Your task to perform on an android device: Search for pizza restaurants on Maps Image 0: 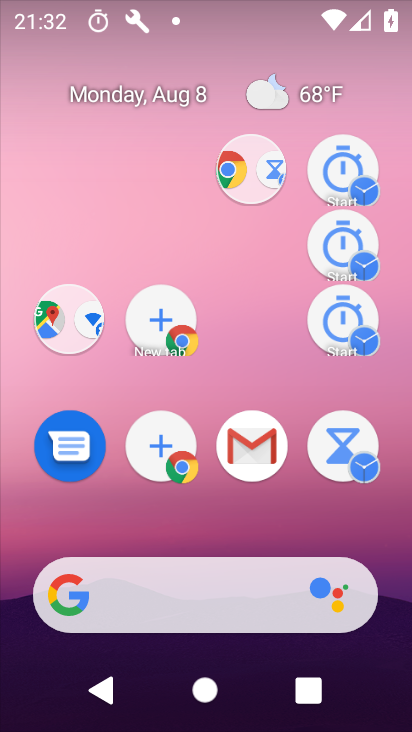
Step 0: click (200, 311)
Your task to perform on an android device: Search for pizza restaurants on Maps Image 1: 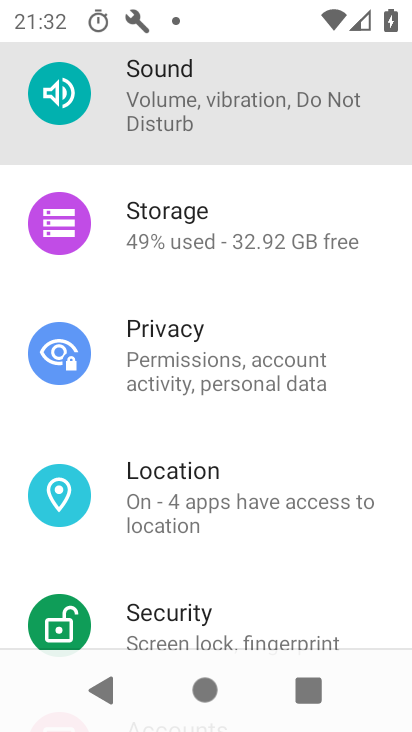
Step 1: drag from (259, 633) to (219, 344)
Your task to perform on an android device: Search for pizza restaurants on Maps Image 2: 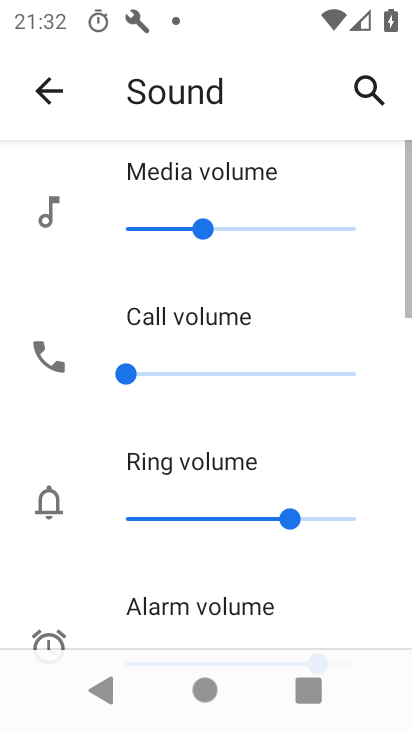
Step 2: press back button
Your task to perform on an android device: Search for pizza restaurants on Maps Image 3: 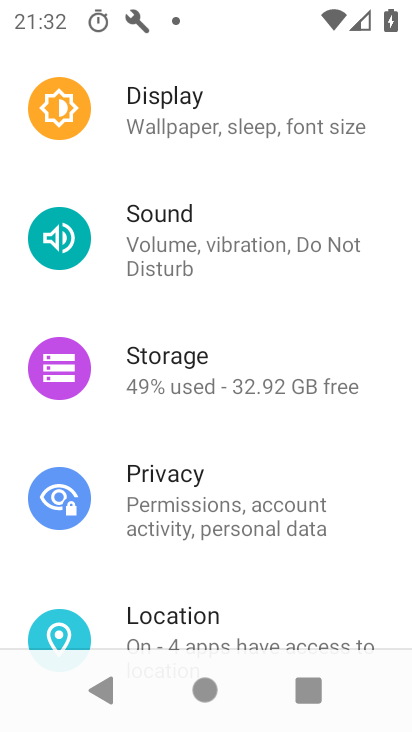
Step 3: press home button
Your task to perform on an android device: Search for pizza restaurants on Maps Image 4: 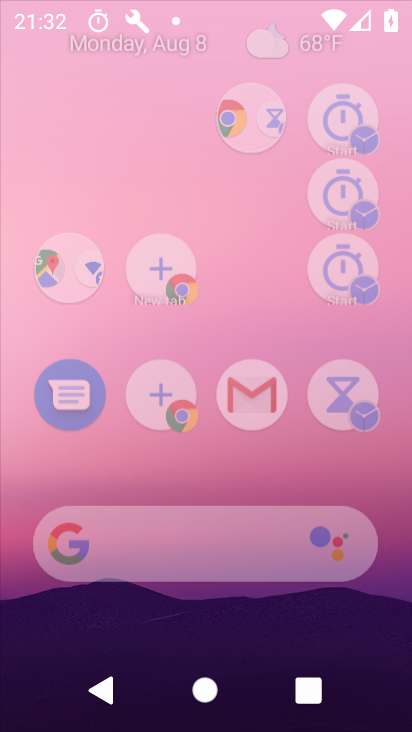
Step 4: press back button
Your task to perform on an android device: Search for pizza restaurants on Maps Image 5: 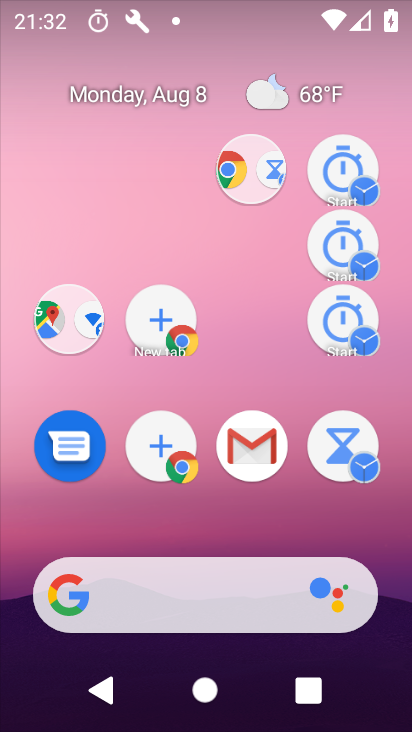
Step 5: drag from (228, 632) to (218, 353)
Your task to perform on an android device: Search for pizza restaurants on Maps Image 6: 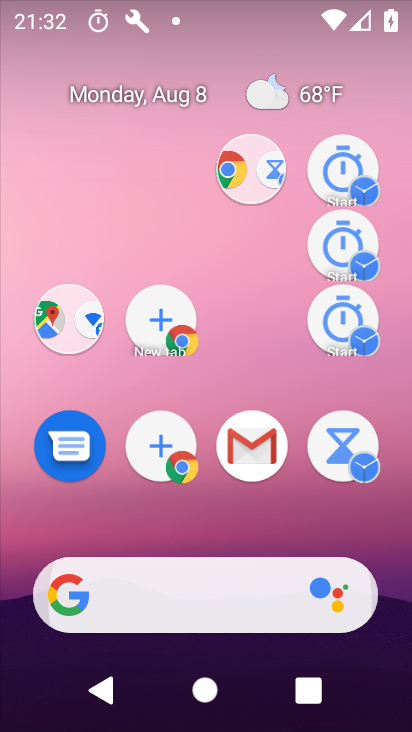
Step 6: drag from (255, 601) to (178, 207)
Your task to perform on an android device: Search for pizza restaurants on Maps Image 7: 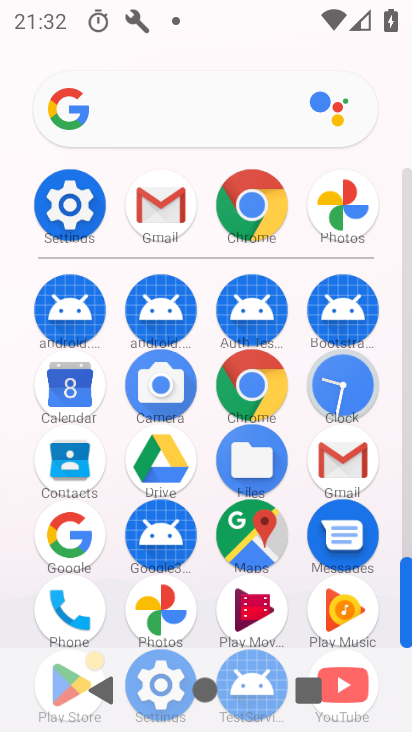
Step 7: drag from (214, 451) to (176, 173)
Your task to perform on an android device: Search for pizza restaurants on Maps Image 8: 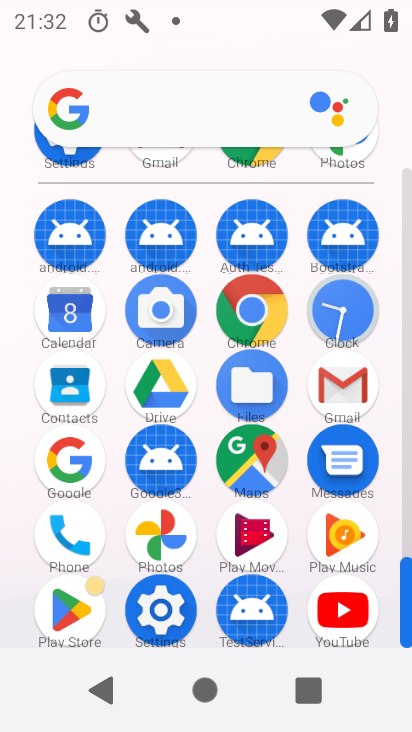
Step 8: click (336, 318)
Your task to perform on an android device: Search for pizza restaurants on Maps Image 9: 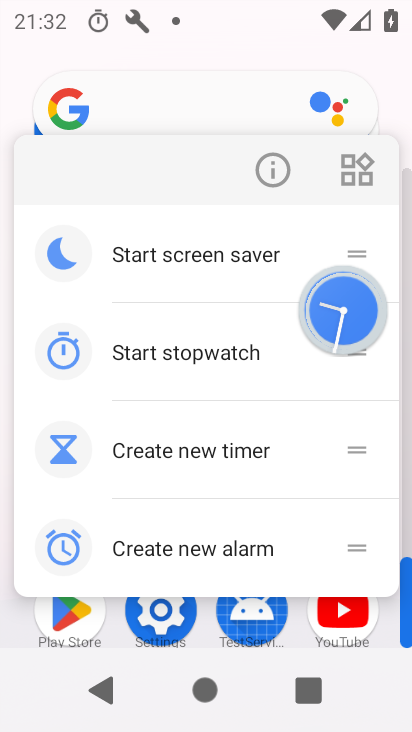
Step 9: click (335, 317)
Your task to perform on an android device: Search for pizza restaurants on Maps Image 10: 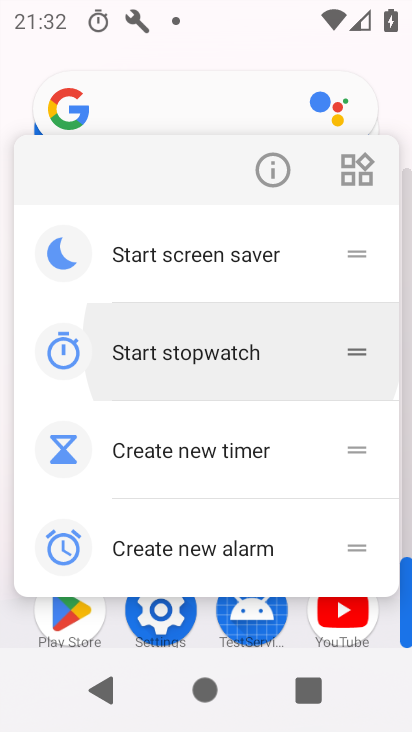
Step 10: click (341, 299)
Your task to perform on an android device: Search for pizza restaurants on Maps Image 11: 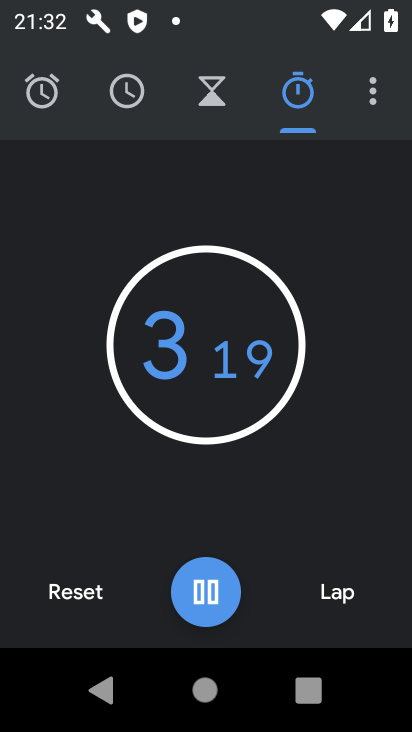
Step 11: click (204, 595)
Your task to perform on an android device: Search for pizza restaurants on Maps Image 12: 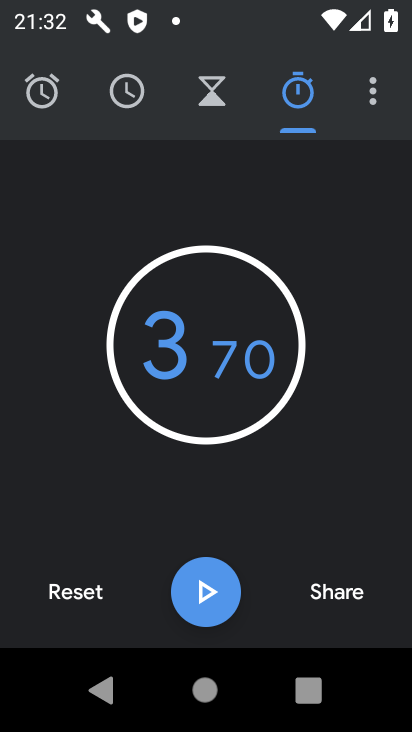
Step 12: click (207, 96)
Your task to perform on an android device: Search for pizza restaurants on Maps Image 13: 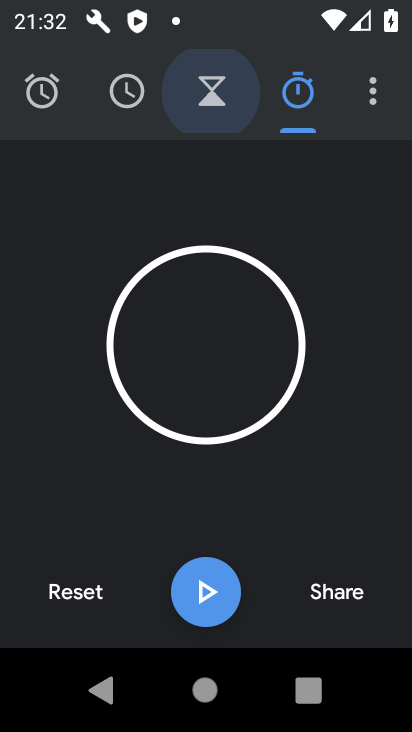
Step 13: click (207, 96)
Your task to perform on an android device: Search for pizza restaurants on Maps Image 14: 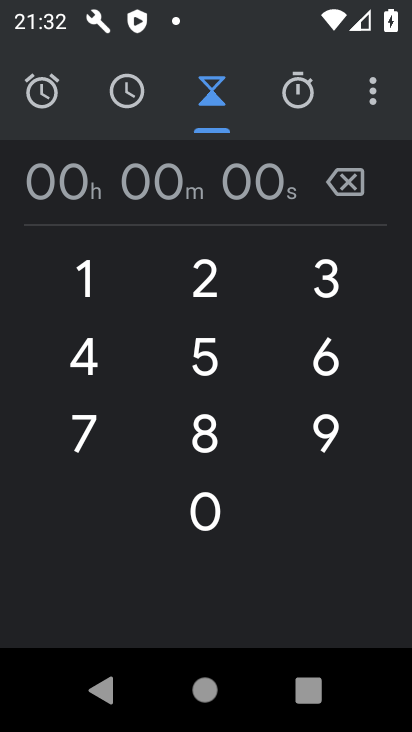
Step 14: click (208, 435)
Your task to perform on an android device: Search for pizza restaurants on Maps Image 15: 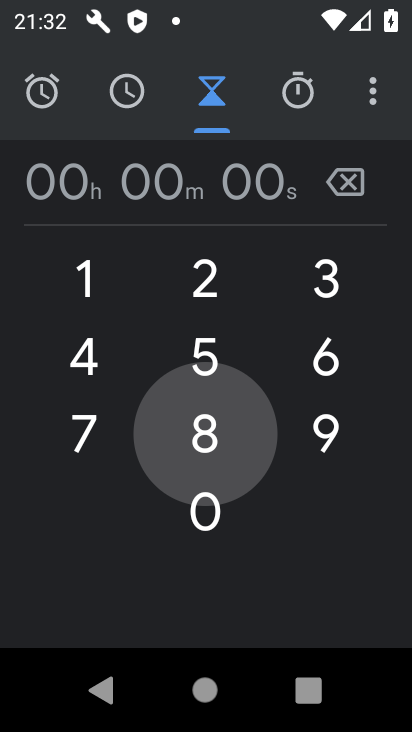
Step 15: click (210, 436)
Your task to perform on an android device: Search for pizza restaurants on Maps Image 16: 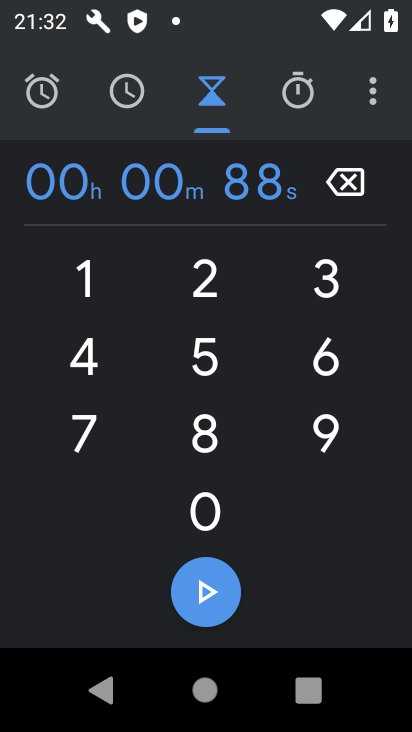
Step 16: click (212, 438)
Your task to perform on an android device: Search for pizza restaurants on Maps Image 17: 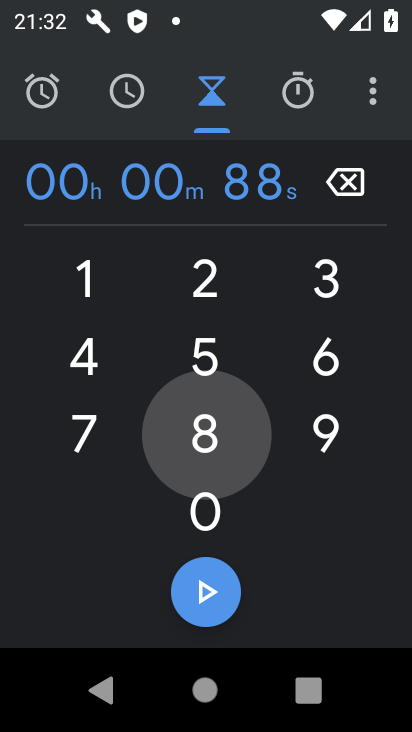
Step 17: click (214, 439)
Your task to perform on an android device: Search for pizza restaurants on Maps Image 18: 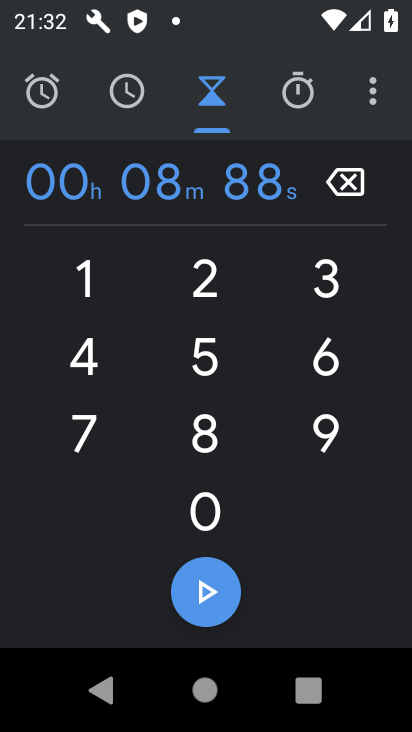
Step 18: click (214, 439)
Your task to perform on an android device: Search for pizza restaurants on Maps Image 19: 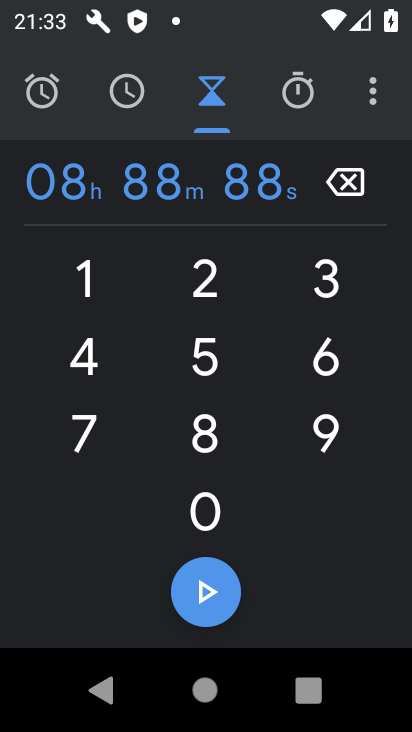
Step 19: click (212, 421)
Your task to perform on an android device: Search for pizza restaurants on Maps Image 20: 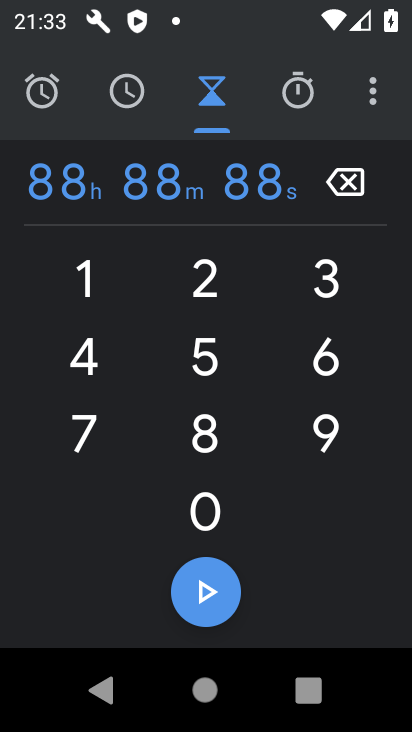
Step 20: task complete